Your task to perform on an android device: Open Chrome and go to settings Image 0: 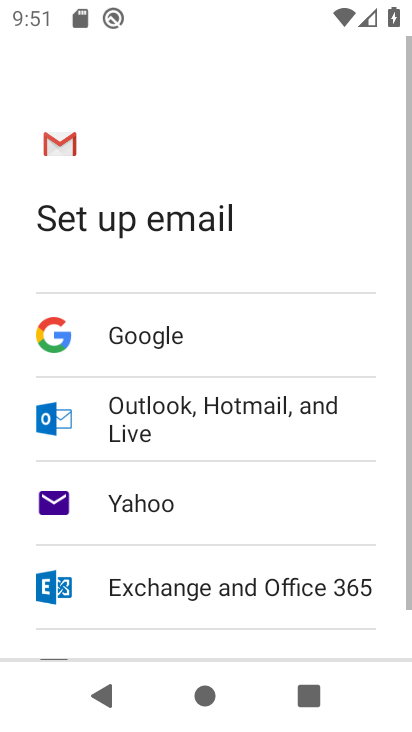
Step 0: press back button
Your task to perform on an android device: Open Chrome and go to settings Image 1: 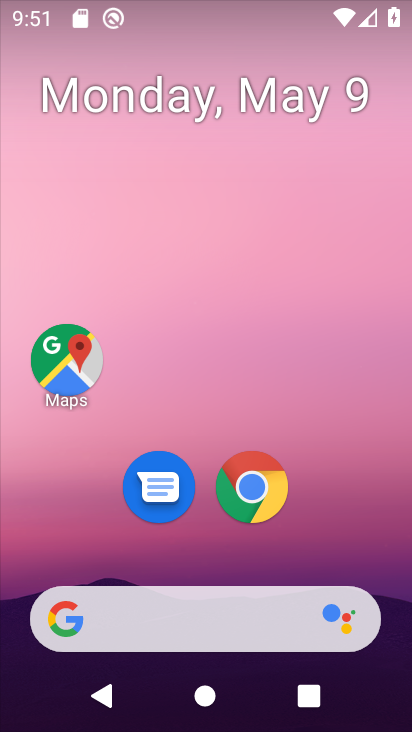
Step 1: drag from (328, 520) to (251, 26)
Your task to perform on an android device: Open Chrome and go to settings Image 2: 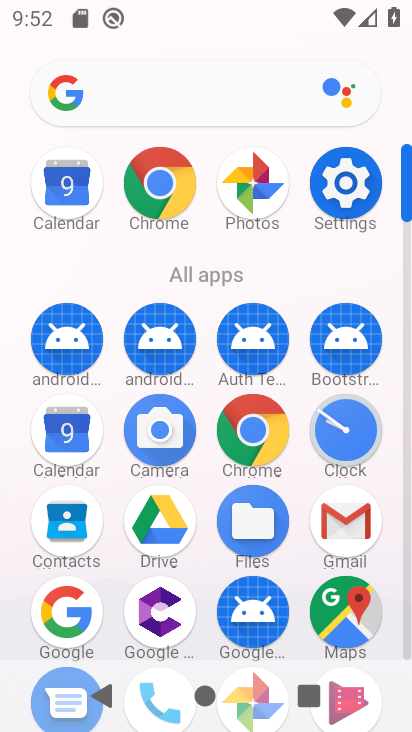
Step 2: drag from (0, 594) to (19, 242)
Your task to perform on an android device: Open Chrome and go to settings Image 3: 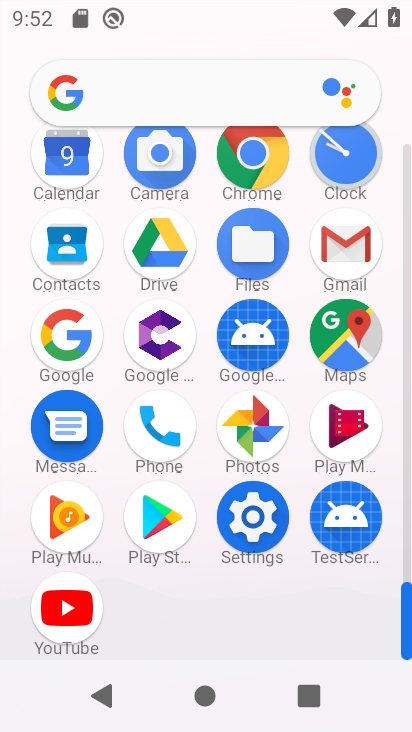
Step 3: click (253, 151)
Your task to perform on an android device: Open Chrome and go to settings Image 4: 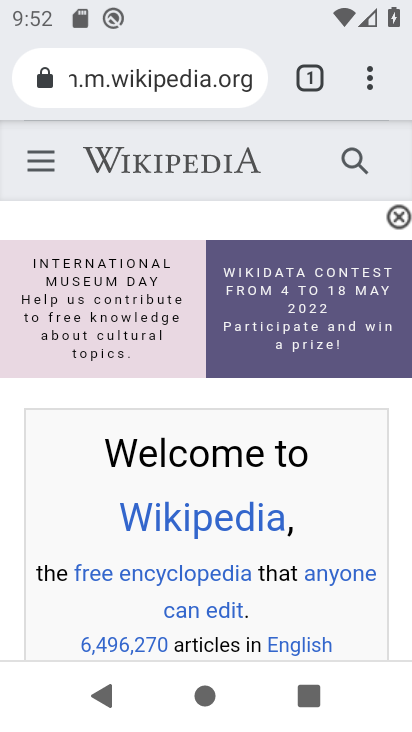
Step 4: task complete